Your task to perform on an android device: turn on sleep mode Image 0: 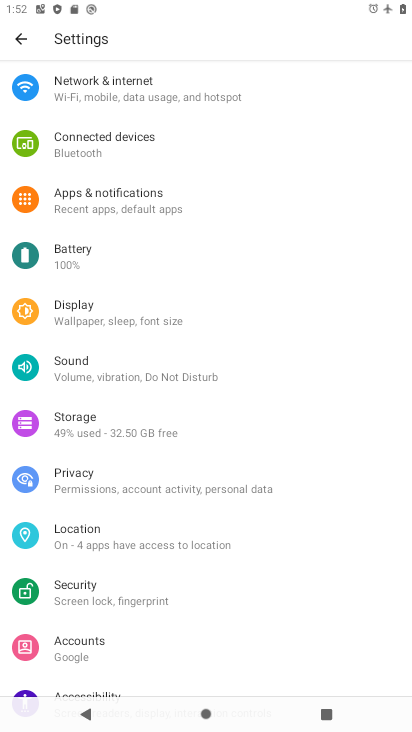
Step 0: press home button
Your task to perform on an android device: turn on sleep mode Image 1: 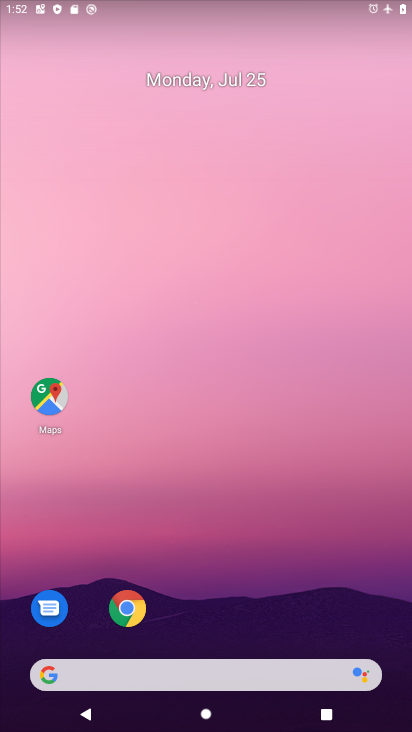
Step 1: drag from (290, 567) to (263, 103)
Your task to perform on an android device: turn on sleep mode Image 2: 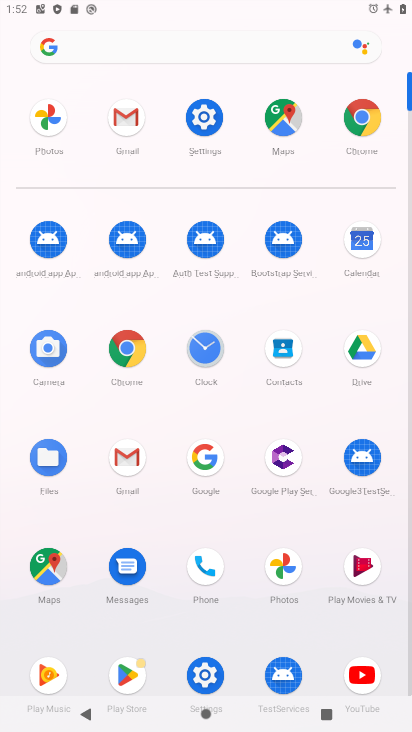
Step 2: click (209, 114)
Your task to perform on an android device: turn on sleep mode Image 3: 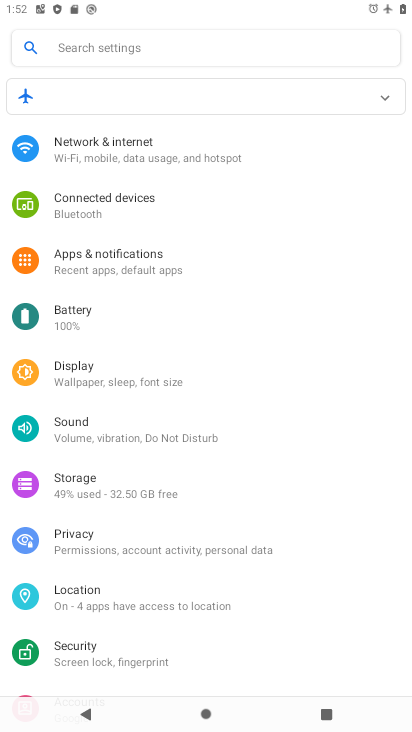
Step 3: click (130, 380)
Your task to perform on an android device: turn on sleep mode Image 4: 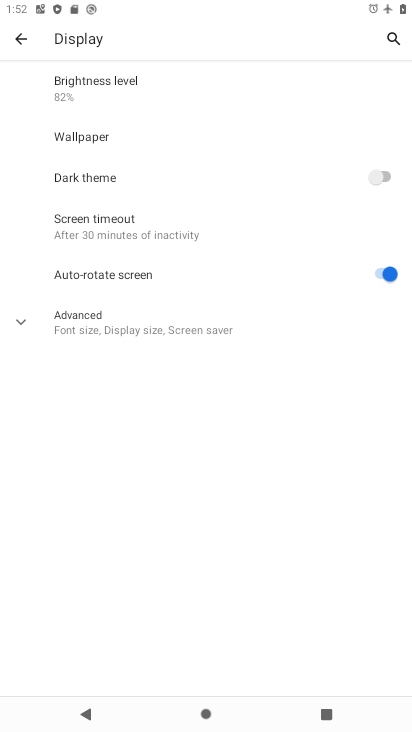
Step 4: click (154, 235)
Your task to perform on an android device: turn on sleep mode Image 5: 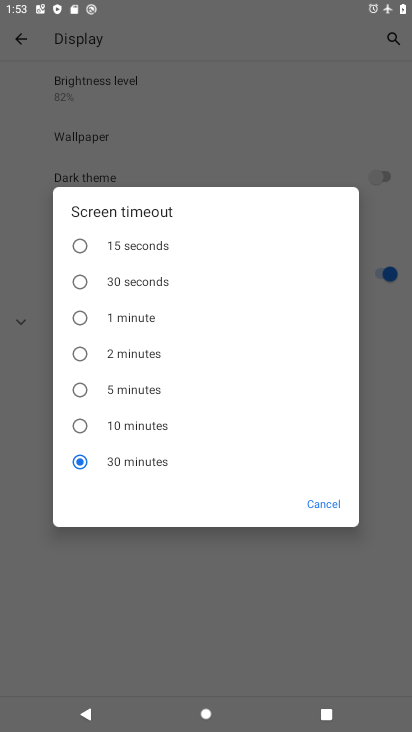
Step 5: task complete